Your task to perform on an android device: install app "Skype" Image 0: 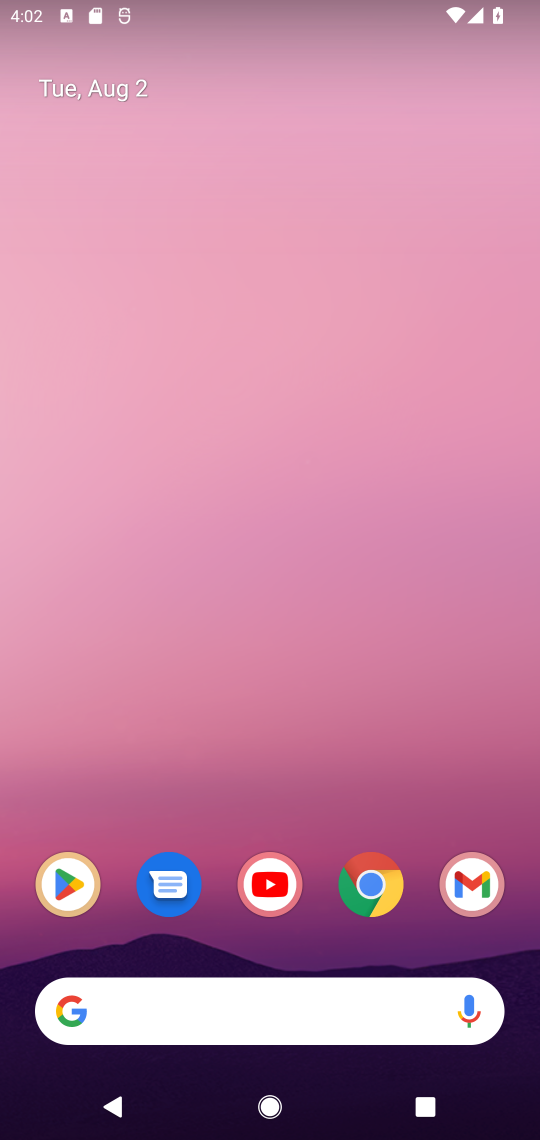
Step 0: drag from (223, 829) to (223, 328)
Your task to perform on an android device: install app "Skype" Image 1: 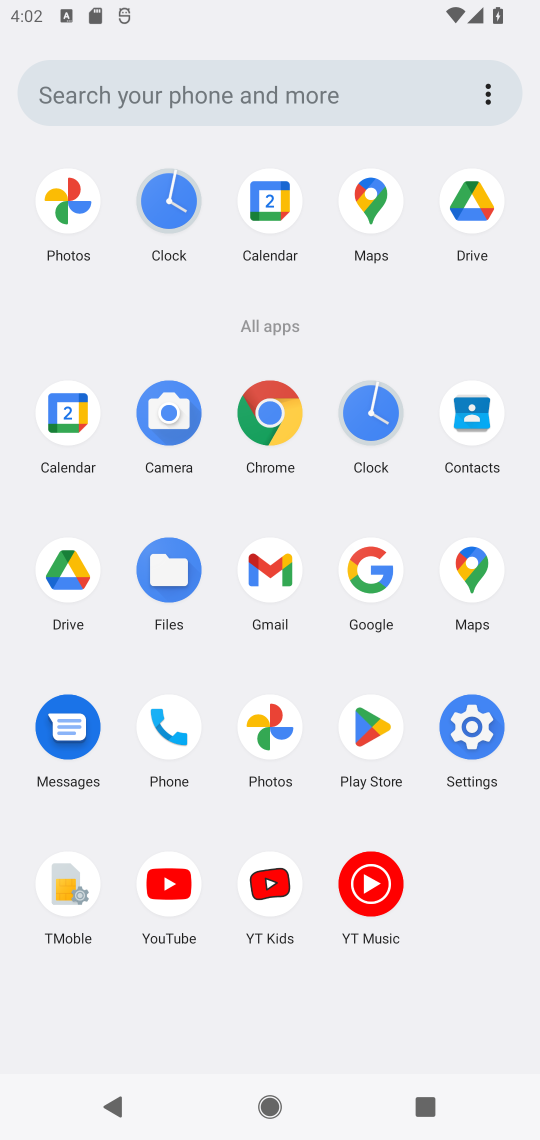
Step 1: click (383, 749)
Your task to perform on an android device: install app "Skype" Image 2: 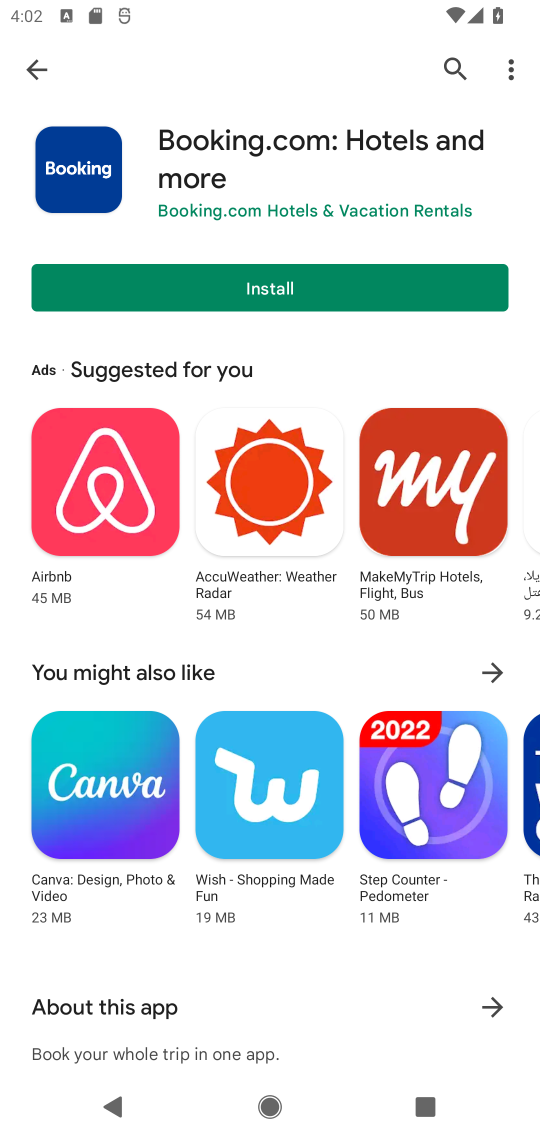
Step 2: click (27, 68)
Your task to perform on an android device: install app "Skype" Image 3: 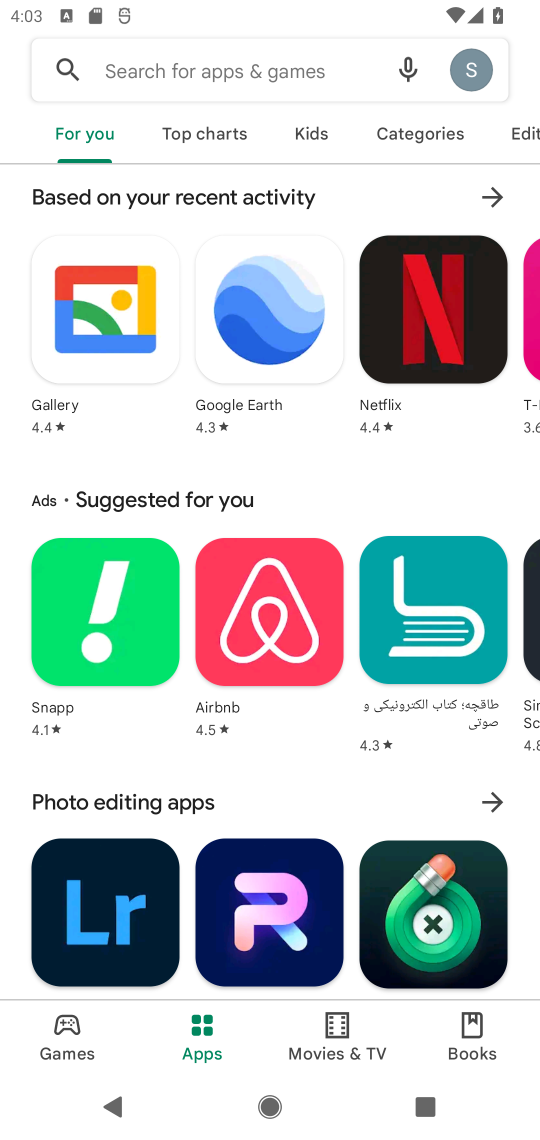
Step 3: click (306, 77)
Your task to perform on an android device: install app "Skype" Image 4: 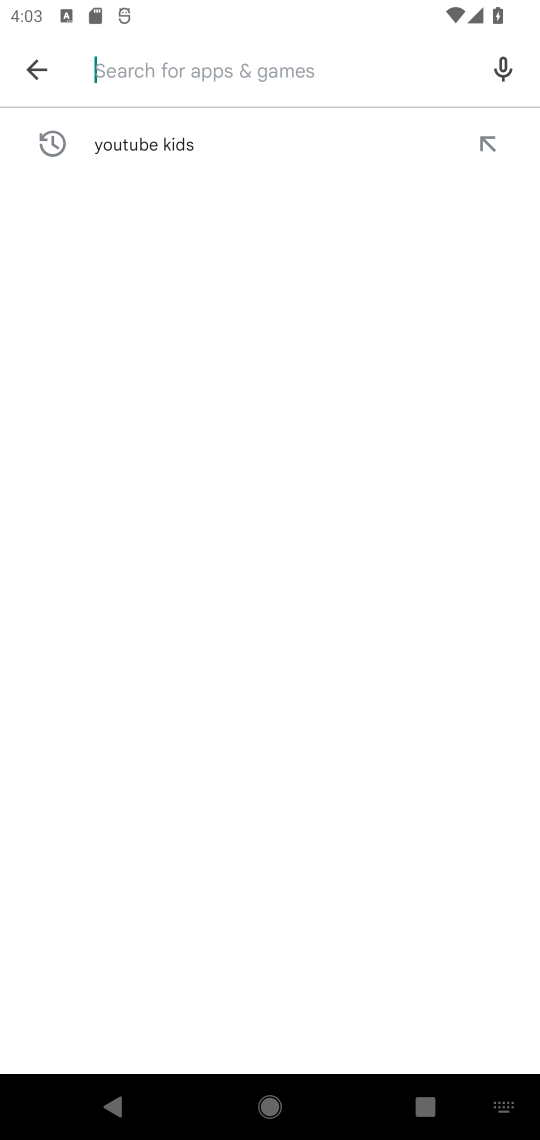
Step 4: click (268, 66)
Your task to perform on an android device: install app "Skype" Image 5: 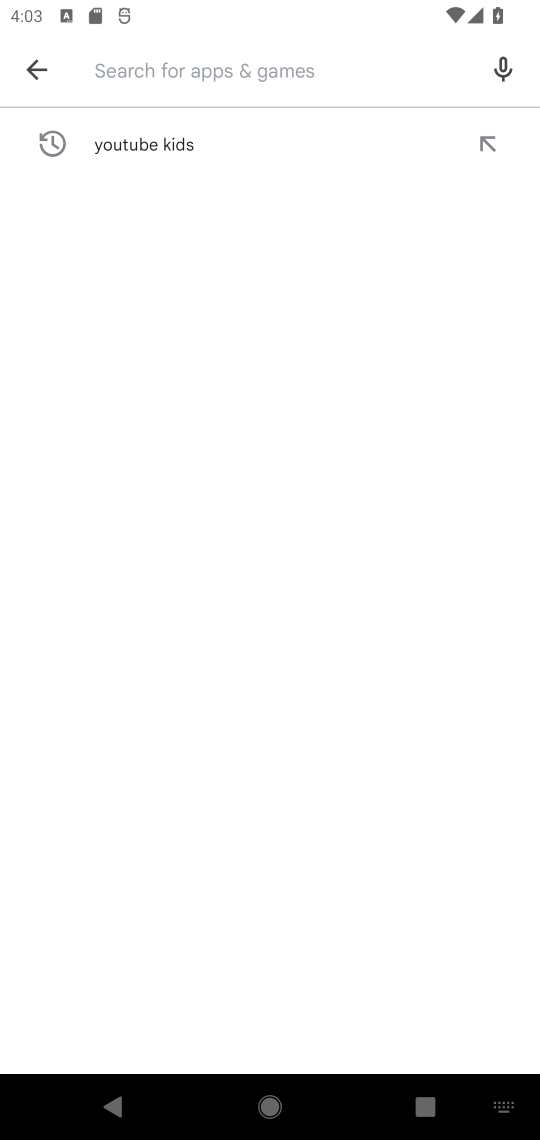
Step 5: type "Skype"
Your task to perform on an android device: install app "Skype" Image 6: 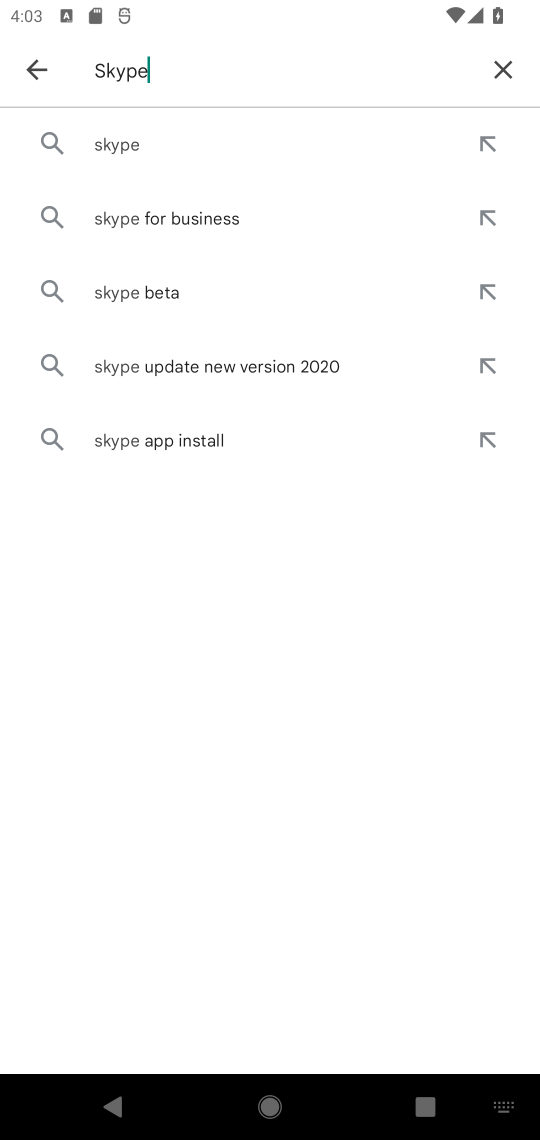
Step 6: click (121, 149)
Your task to perform on an android device: install app "Skype" Image 7: 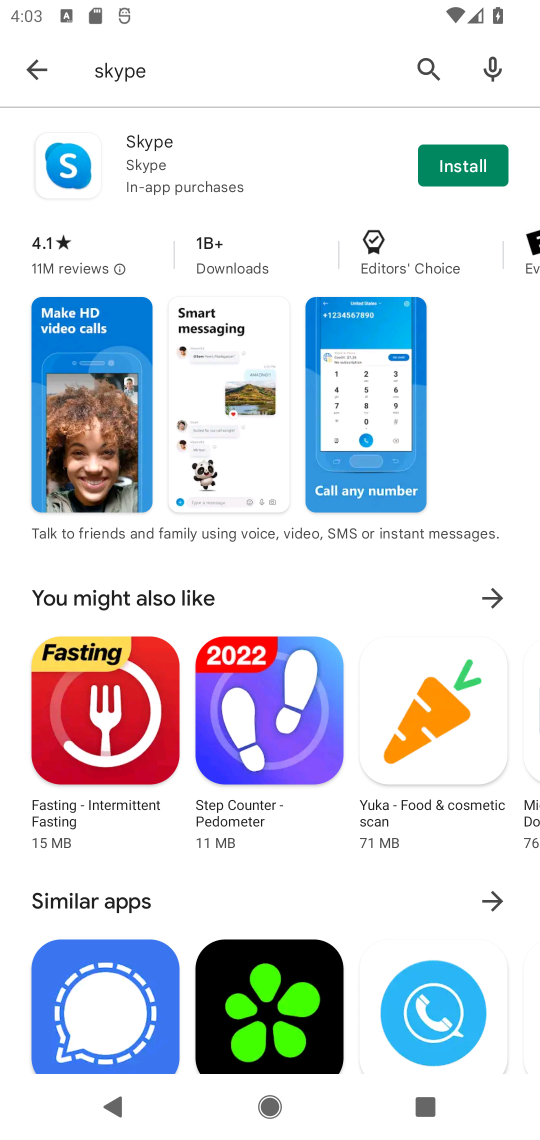
Step 7: click (483, 160)
Your task to perform on an android device: install app "Skype" Image 8: 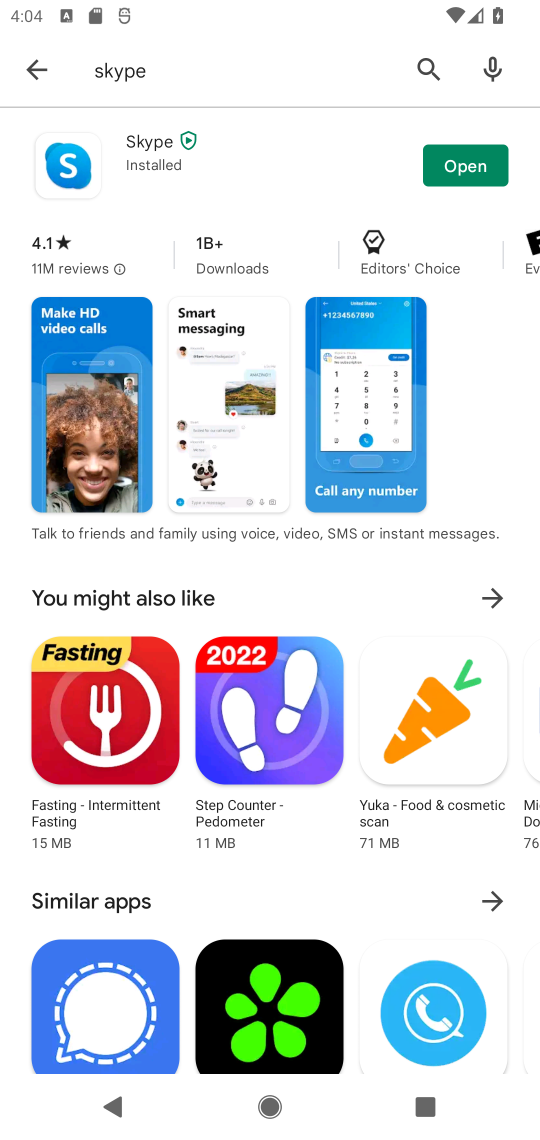
Step 8: task complete